Your task to perform on an android device: Go to CNN.com Image 0: 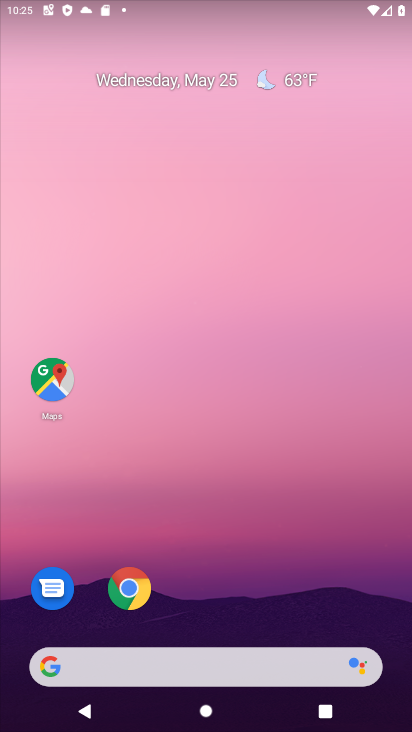
Step 0: click (145, 596)
Your task to perform on an android device: Go to CNN.com Image 1: 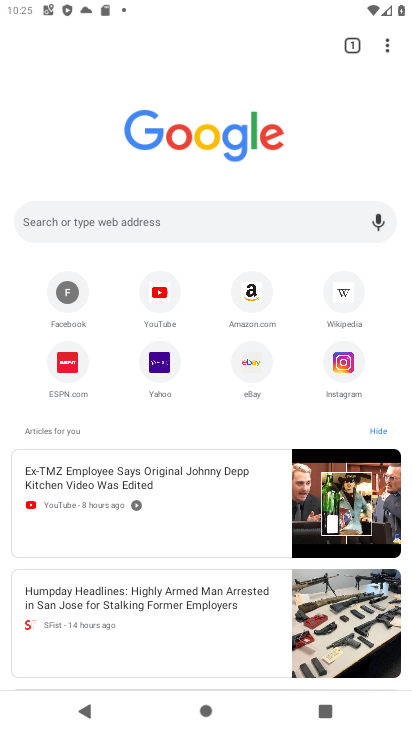
Step 1: click (187, 208)
Your task to perform on an android device: Go to CNN.com Image 2: 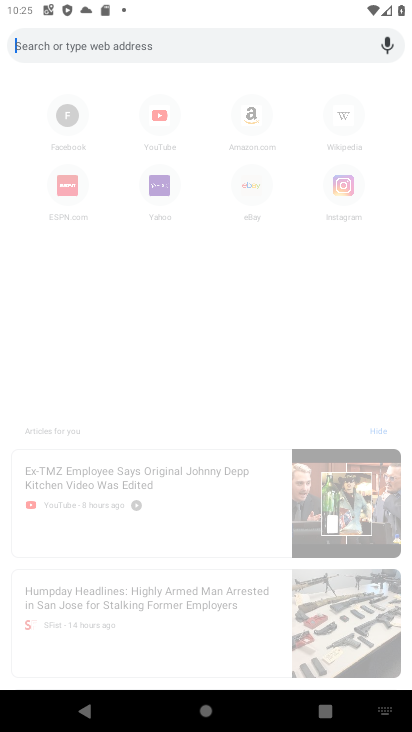
Step 2: type "cnn.com"
Your task to perform on an android device: Go to CNN.com Image 3: 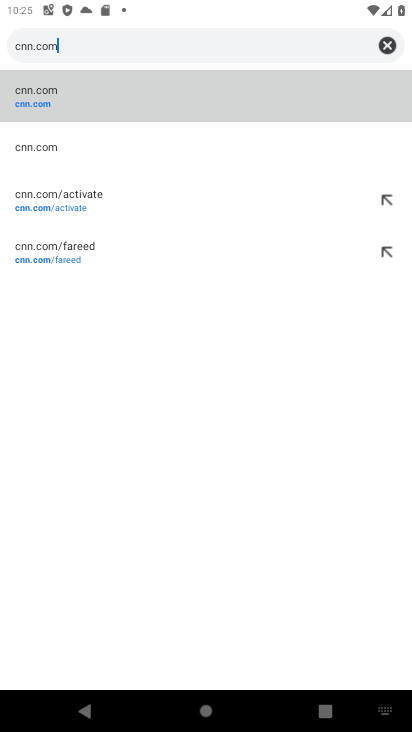
Step 3: click (115, 81)
Your task to perform on an android device: Go to CNN.com Image 4: 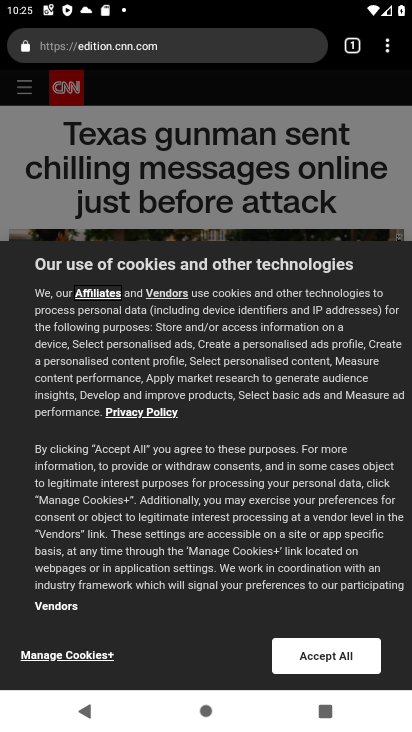
Step 4: task complete